Your task to perform on an android device: Open Chrome and go to settings Image 0: 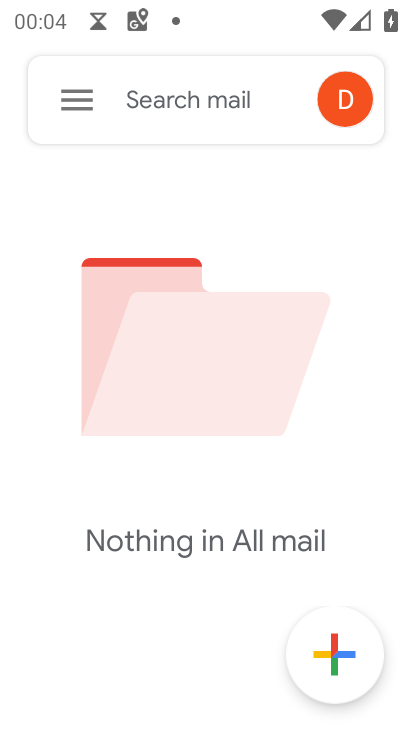
Step 0: press home button
Your task to perform on an android device: Open Chrome and go to settings Image 1: 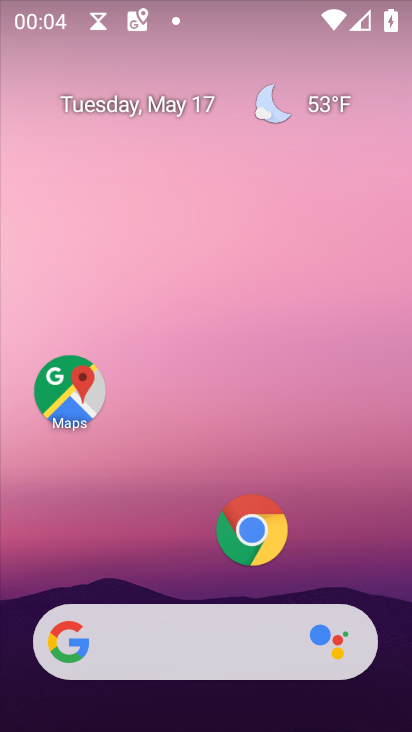
Step 1: drag from (314, 580) to (185, 147)
Your task to perform on an android device: Open Chrome and go to settings Image 2: 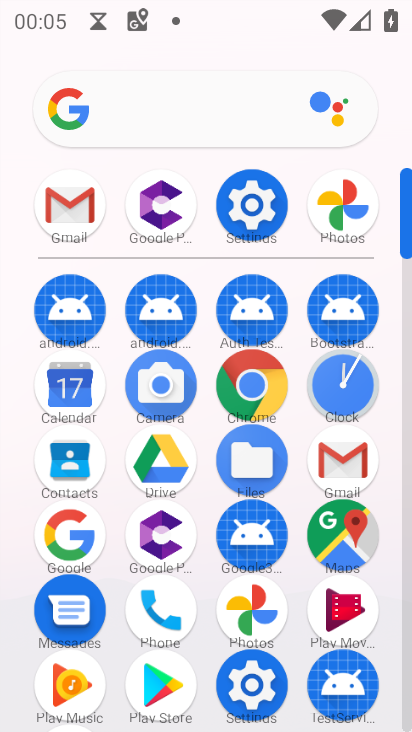
Step 2: click (266, 392)
Your task to perform on an android device: Open Chrome and go to settings Image 3: 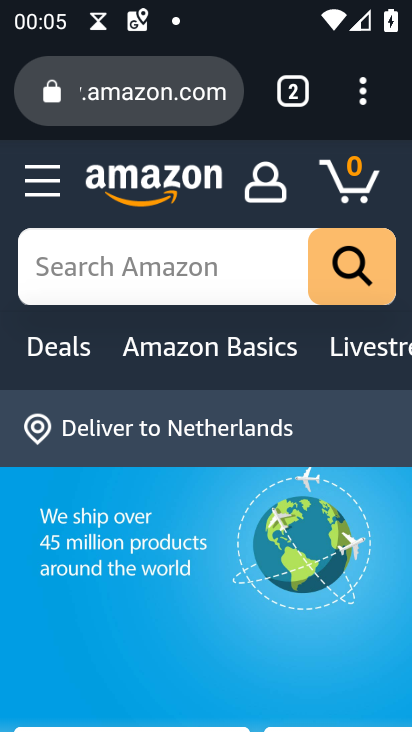
Step 3: click (360, 104)
Your task to perform on an android device: Open Chrome and go to settings Image 4: 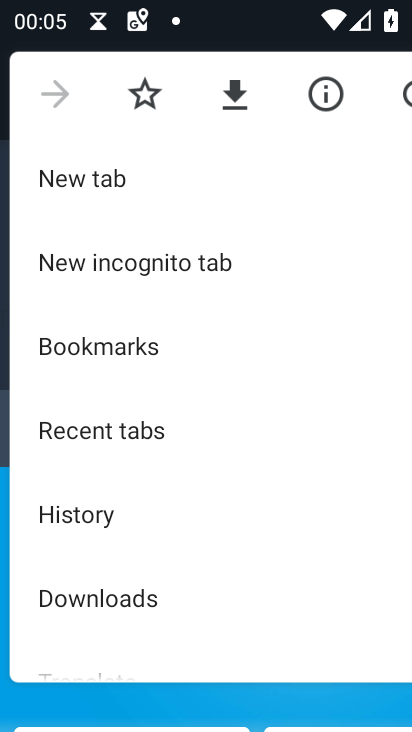
Step 4: drag from (216, 584) to (246, 238)
Your task to perform on an android device: Open Chrome and go to settings Image 5: 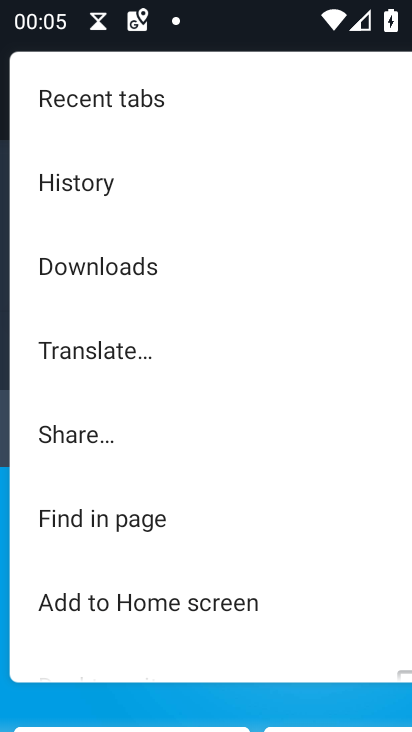
Step 5: drag from (201, 579) to (261, 134)
Your task to perform on an android device: Open Chrome and go to settings Image 6: 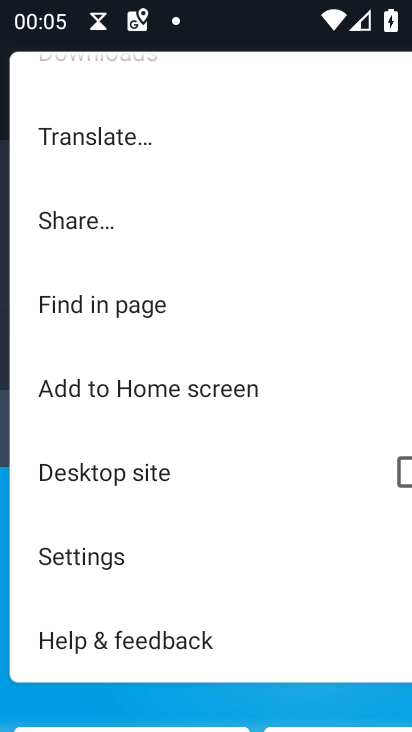
Step 6: click (115, 565)
Your task to perform on an android device: Open Chrome and go to settings Image 7: 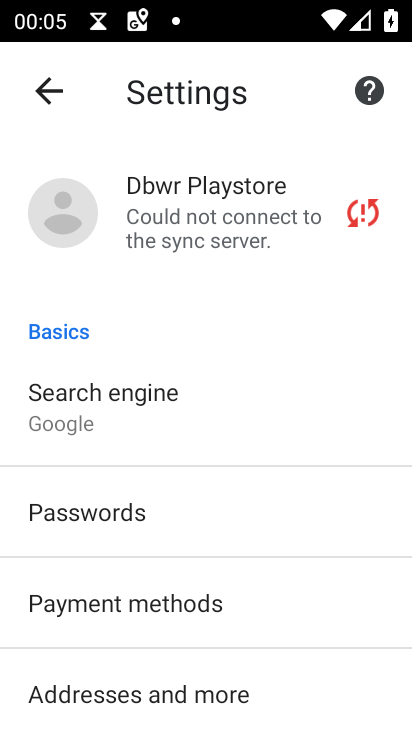
Step 7: task complete